Your task to perform on an android device: turn pop-ups on in chrome Image 0: 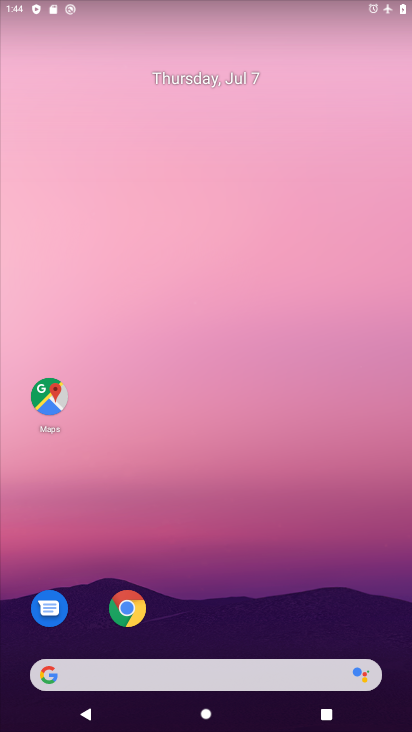
Step 0: click (128, 609)
Your task to perform on an android device: turn pop-ups on in chrome Image 1: 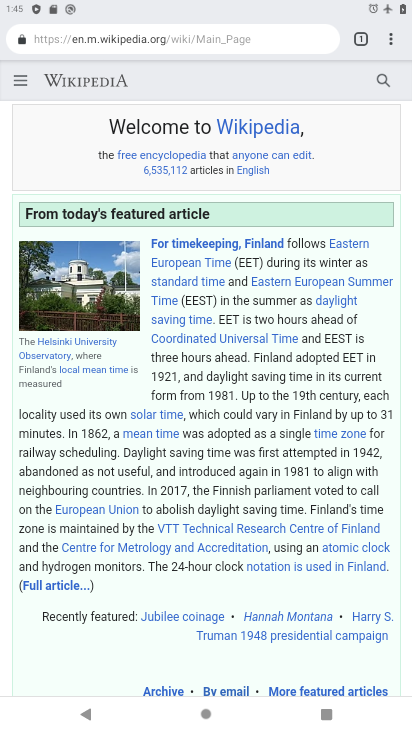
Step 1: click (391, 42)
Your task to perform on an android device: turn pop-ups on in chrome Image 2: 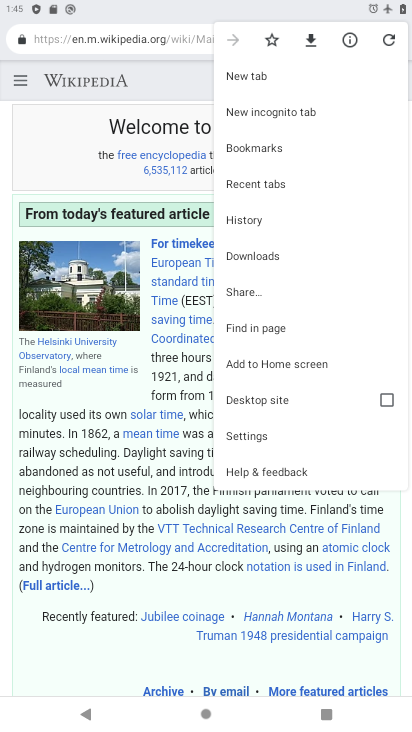
Step 2: click (240, 432)
Your task to perform on an android device: turn pop-ups on in chrome Image 3: 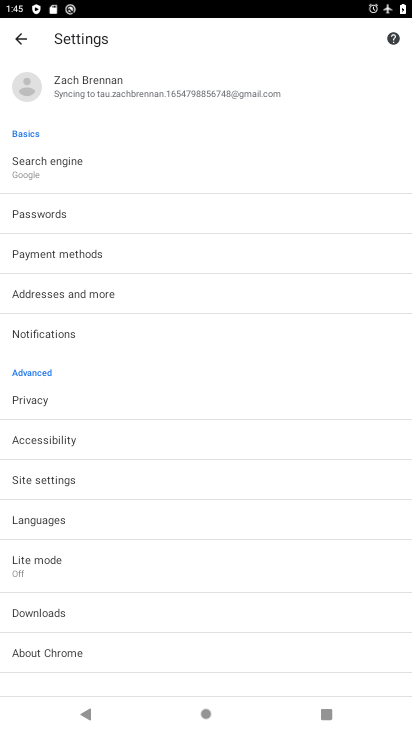
Step 3: click (52, 480)
Your task to perform on an android device: turn pop-ups on in chrome Image 4: 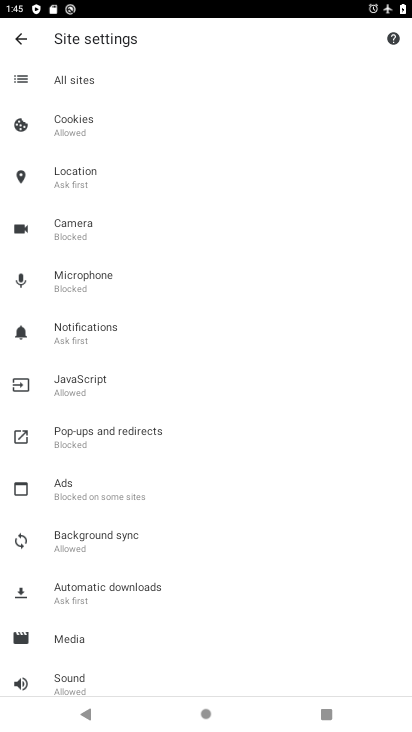
Step 4: click (75, 431)
Your task to perform on an android device: turn pop-ups on in chrome Image 5: 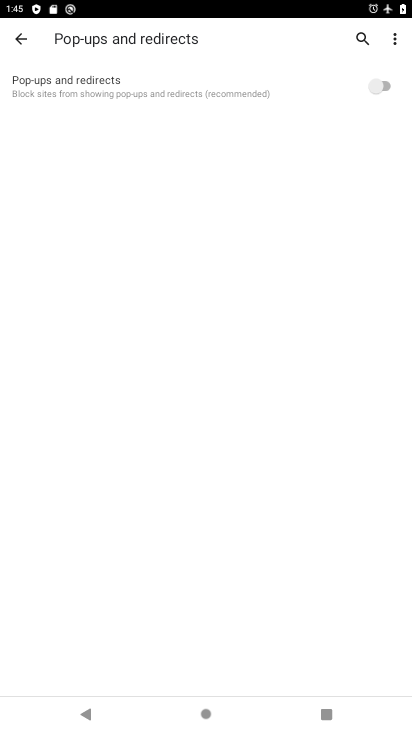
Step 5: click (385, 82)
Your task to perform on an android device: turn pop-ups on in chrome Image 6: 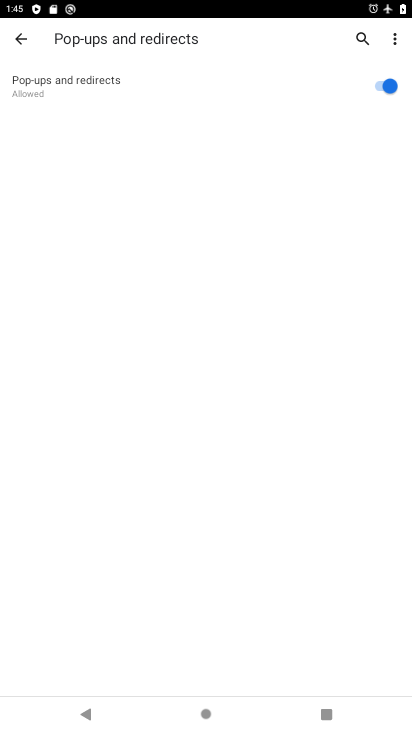
Step 6: task complete